Your task to perform on an android device: refresh tabs in the chrome app Image 0: 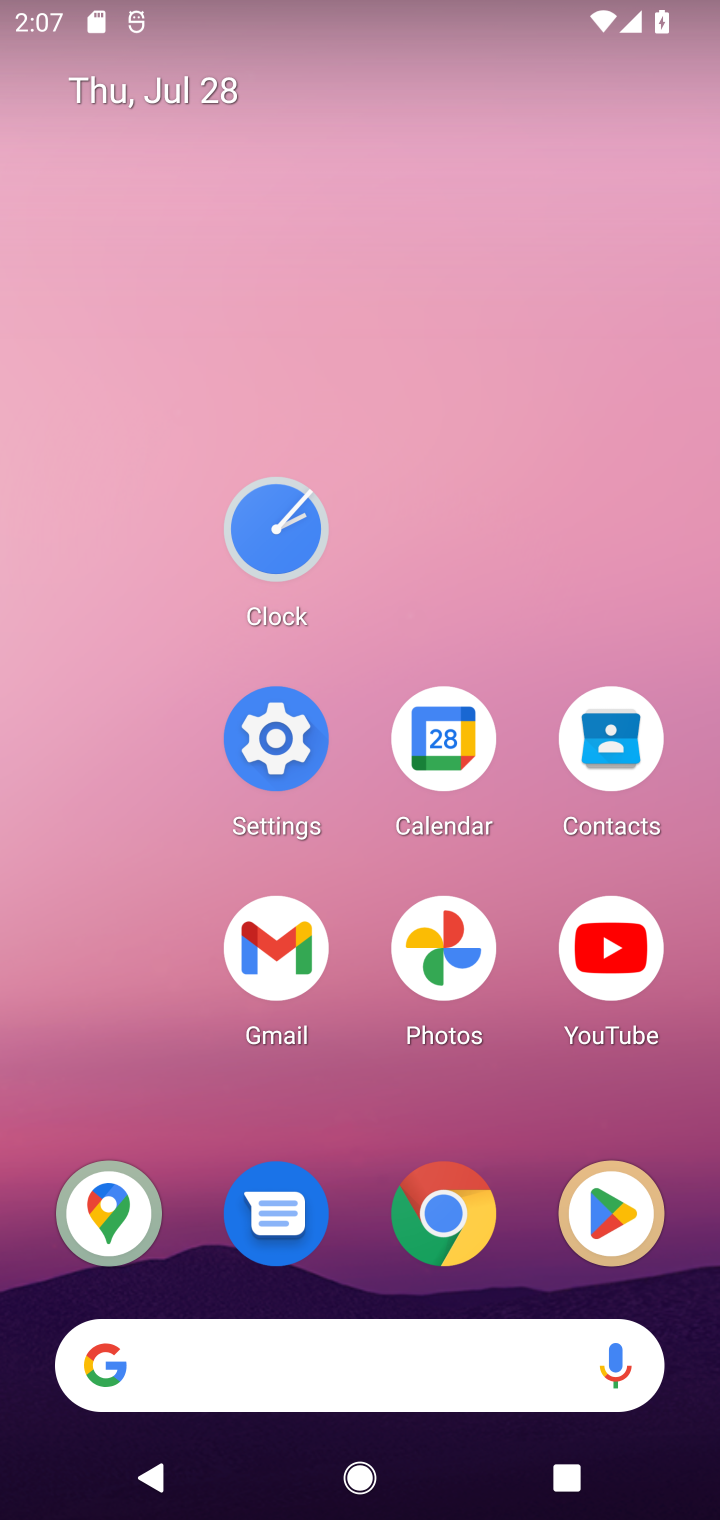
Step 0: click (447, 1196)
Your task to perform on an android device: refresh tabs in the chrome app Image 1: 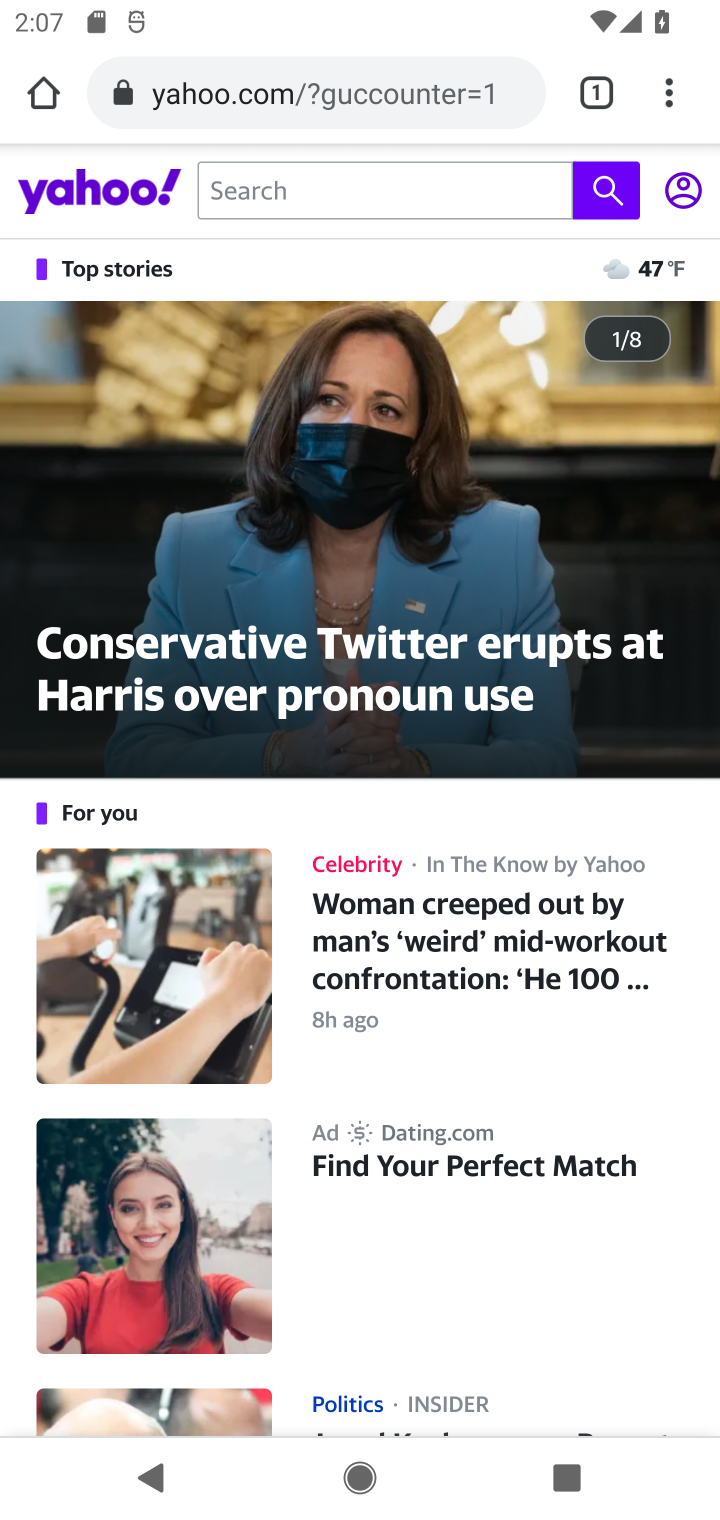
Step 1: click (669, 95)
Your task to perform on an android device: refresh tabs in the chrome app Image 2: 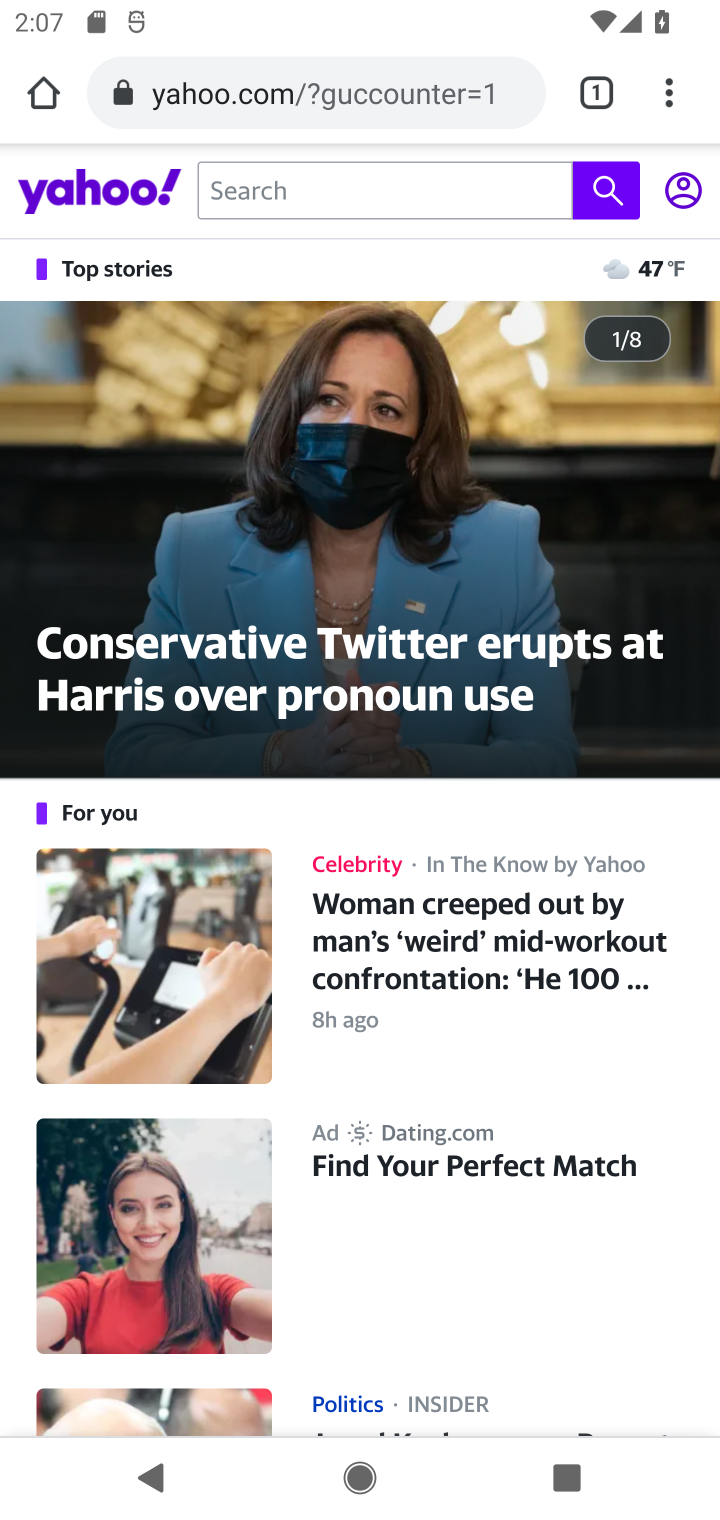
Step 2: click (669, 95)
Your task to perform on an android device: refresh tabs in the chrome app Image 3: 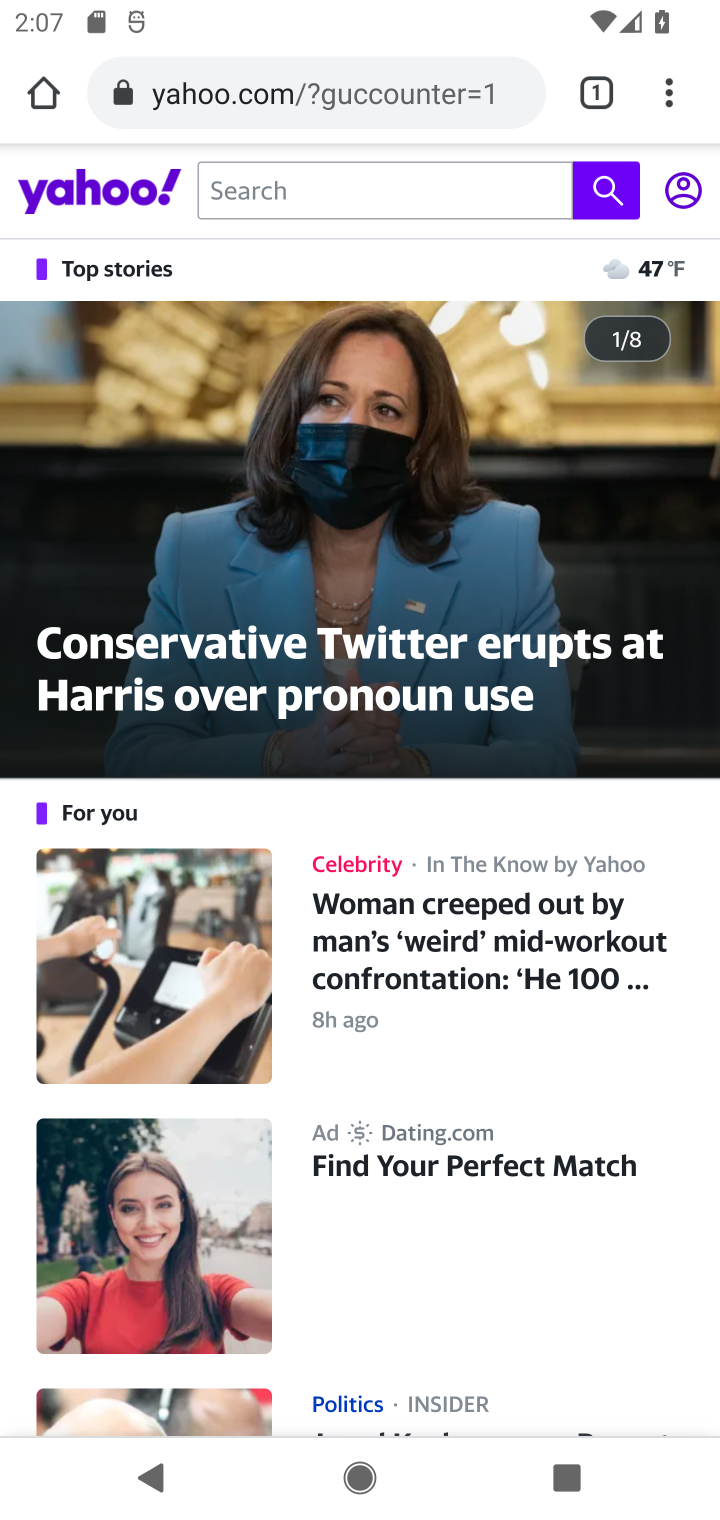
Step 3: click (669, 95)
Your task to perform on an android device: refresh tabs in the chrome app Image 4: 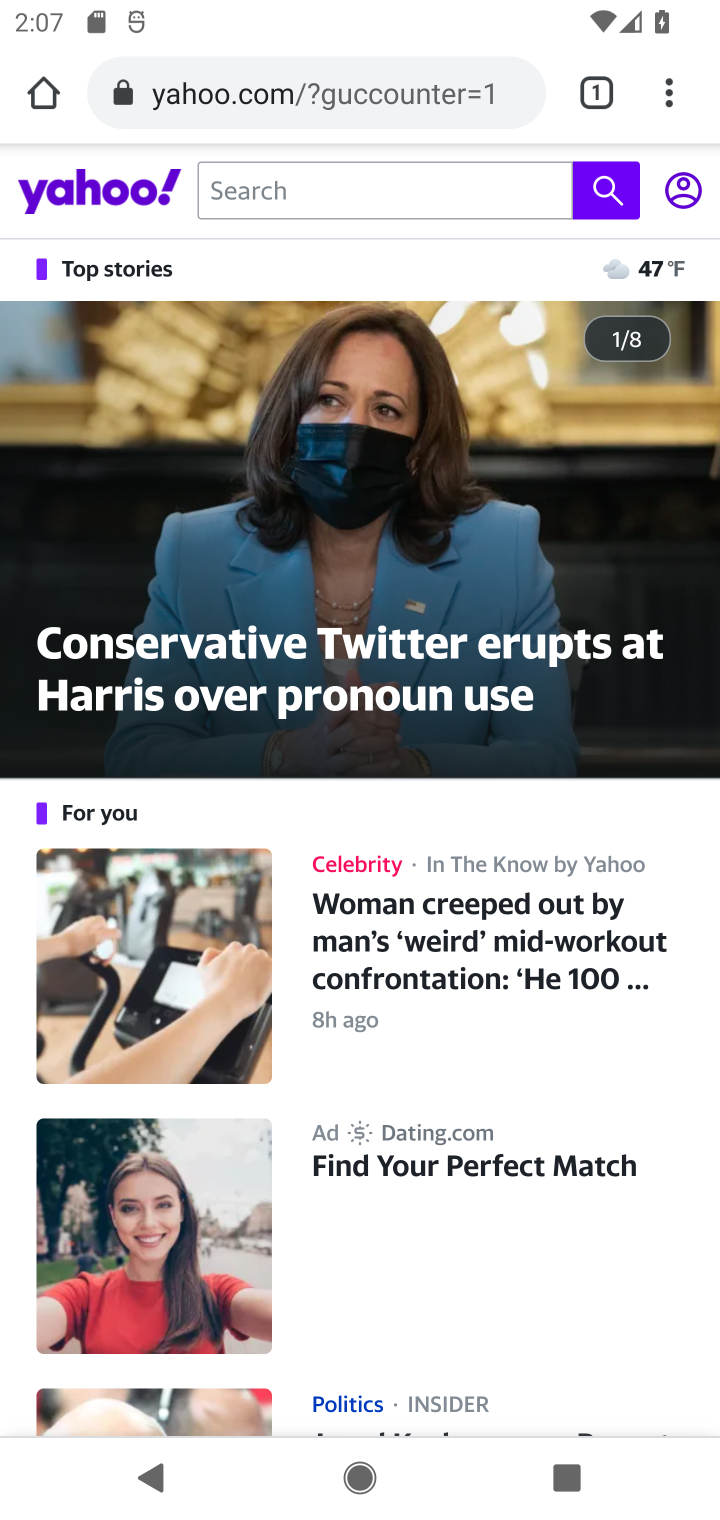
Step 4: click (671, 96)
Your task to perform on an android device: refresh tabs in the chrome app Image 5: 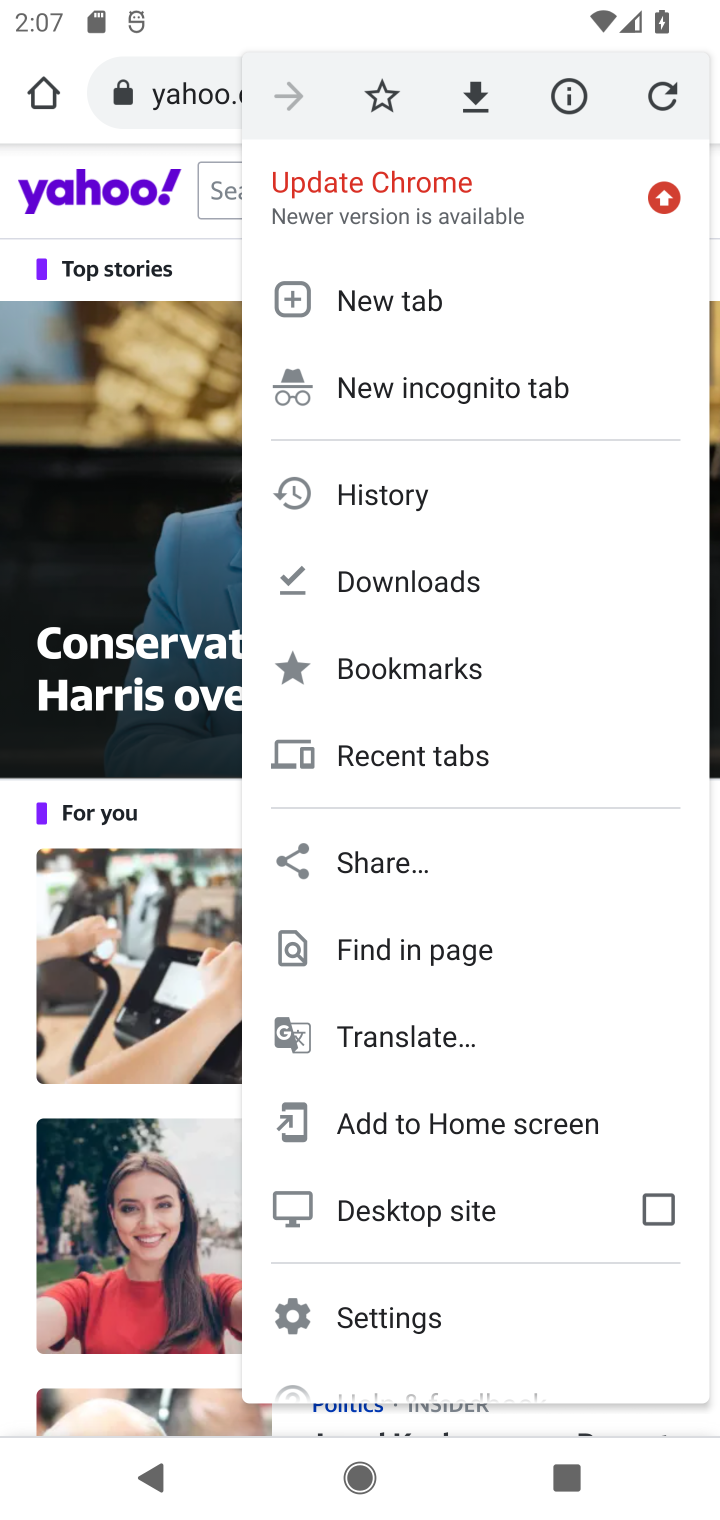
Step 5: click (663, 105)
Your task to perform on an android device: refresh tabs in the chrome app Image 6: 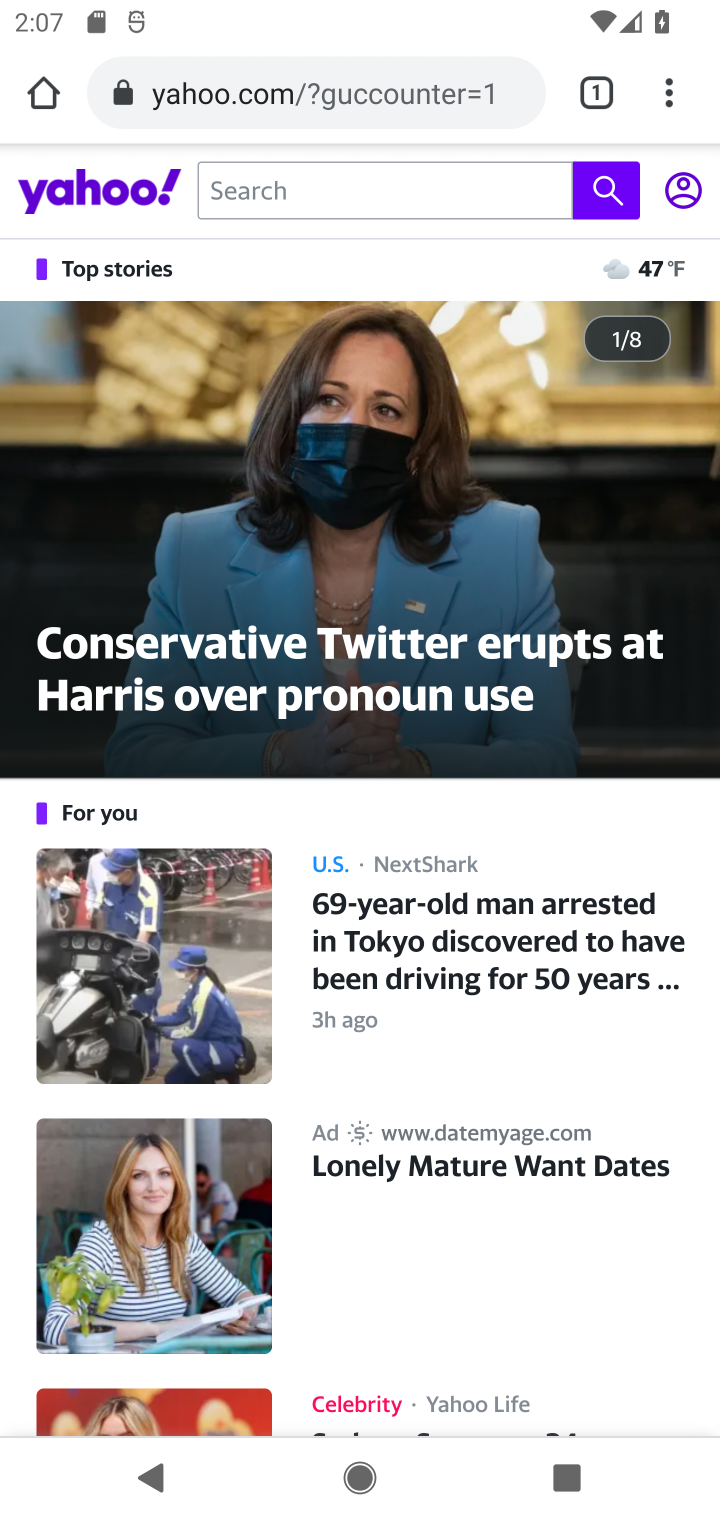
Step 6: task complete